Your task to perform on an android device: open chrome and create a bookmark for the current page Image 0: 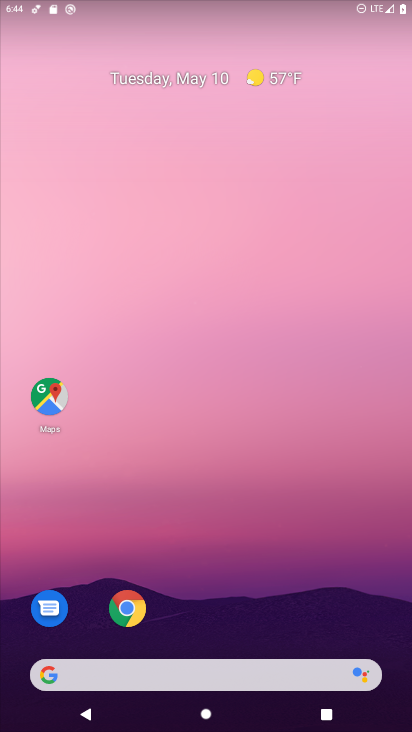
Step 0: drag from (306, 602) to (225, 69)
Your task to perform on an android device: open chrome and create a bookmark for the current page Image 1: 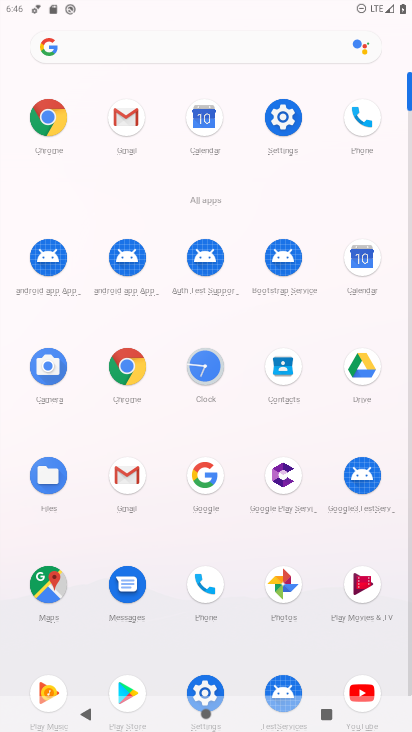
Step 1: click (132, 366)
Your task to perform on an android device: open chrome and create a bookmark for the current page Image 2: 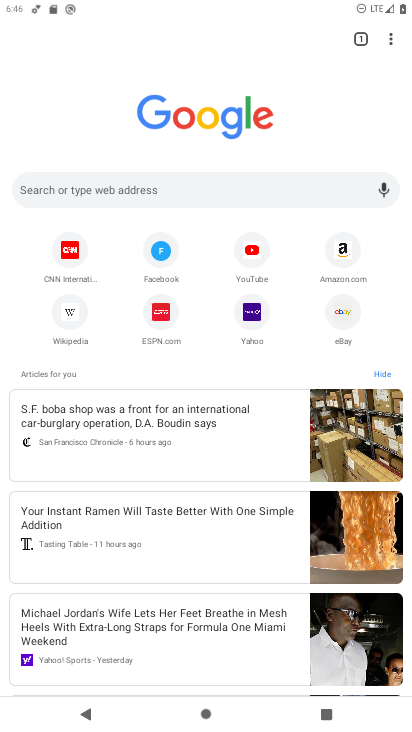
Step 2: click (387, 38)
Your task to perform on an android device: open chrome and create a bookmark for the current page Image 3: 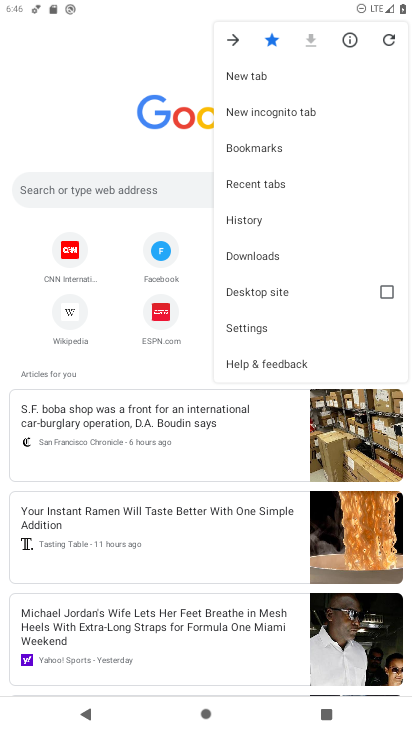
Step 3: task complete